Your task to perform on an android device: What's the weather today? Image 0: 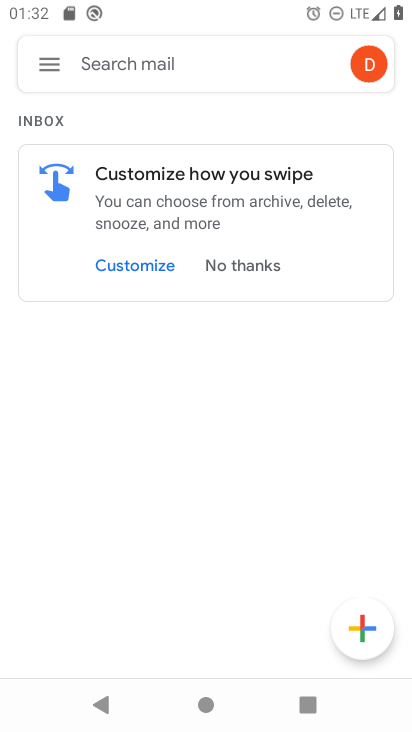
Step 0: drag from (287, 144) to (307, 486)
Your task to perform on an android device: What's the weather today? Image 1: 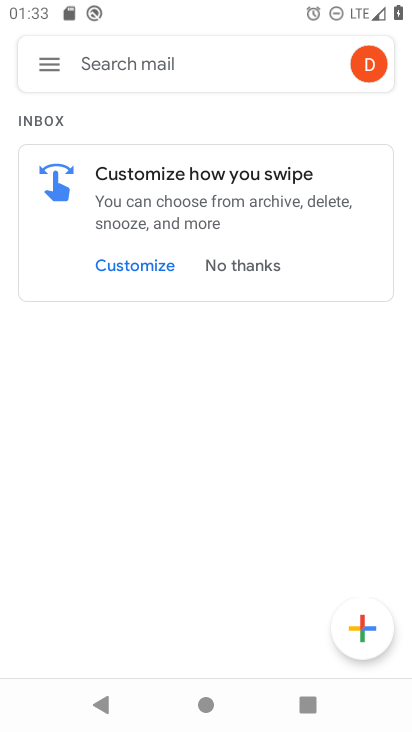
Step 1: task complete